Your task to perform on an android device: What is the news today? Image 0: 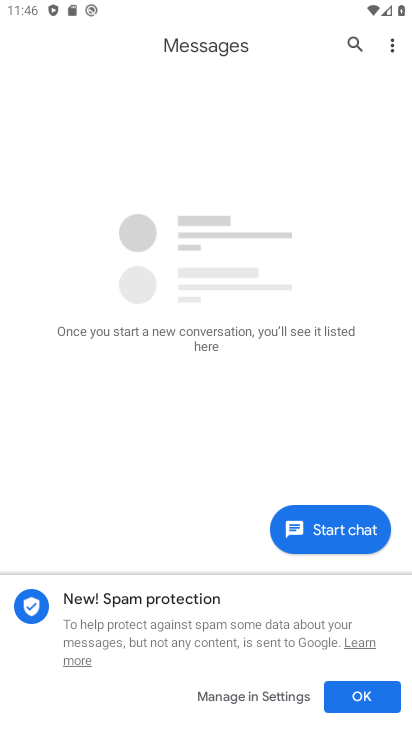
Step 0: press home button
Your task to perform on an android device: What is the news today? Image 1: 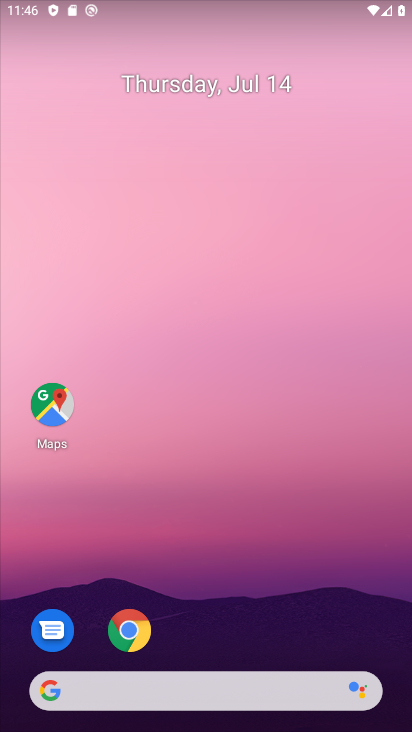
Step 1: task complete